Your task to perform on an android device: make emails show in primary in the gmail app Image 0: 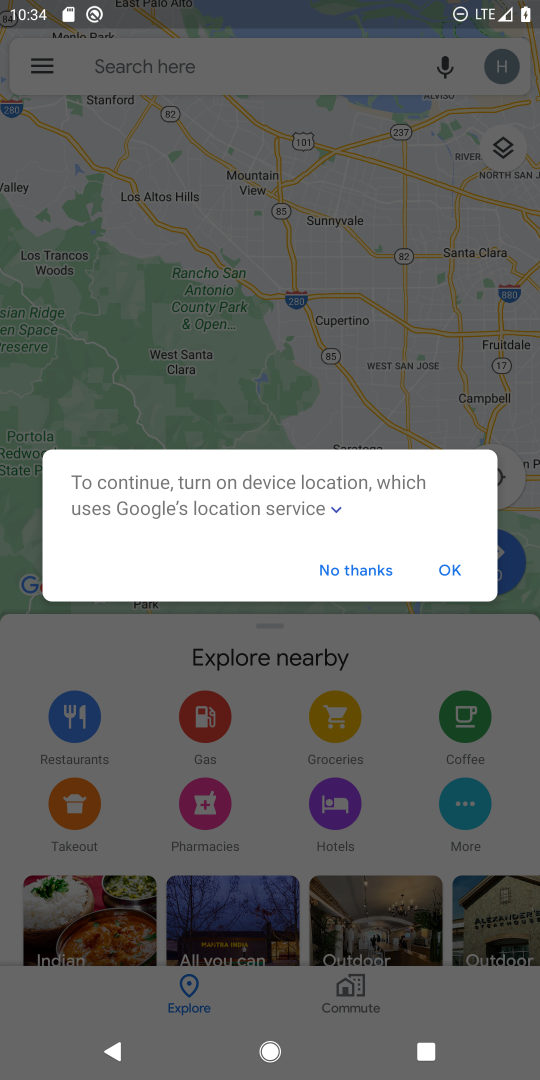
Step 0: press home button
Your task to perform on an android device: make emails show in primary in the gmail app Image 1: 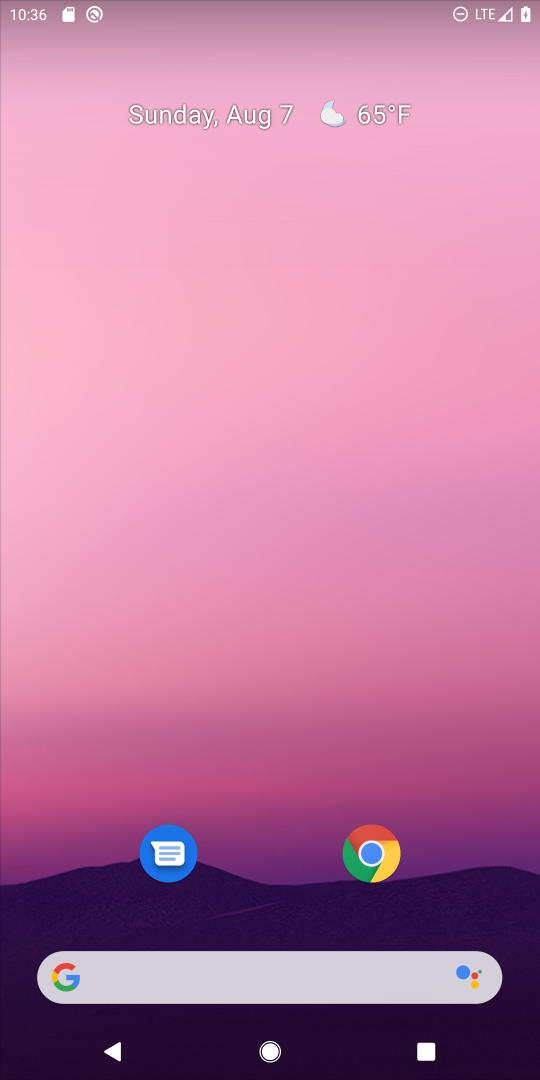
Step 1: drag from (241, 944) to (300, 531)
Your task to perform on an android device: make emails show in primary in the gmail app Image 2: 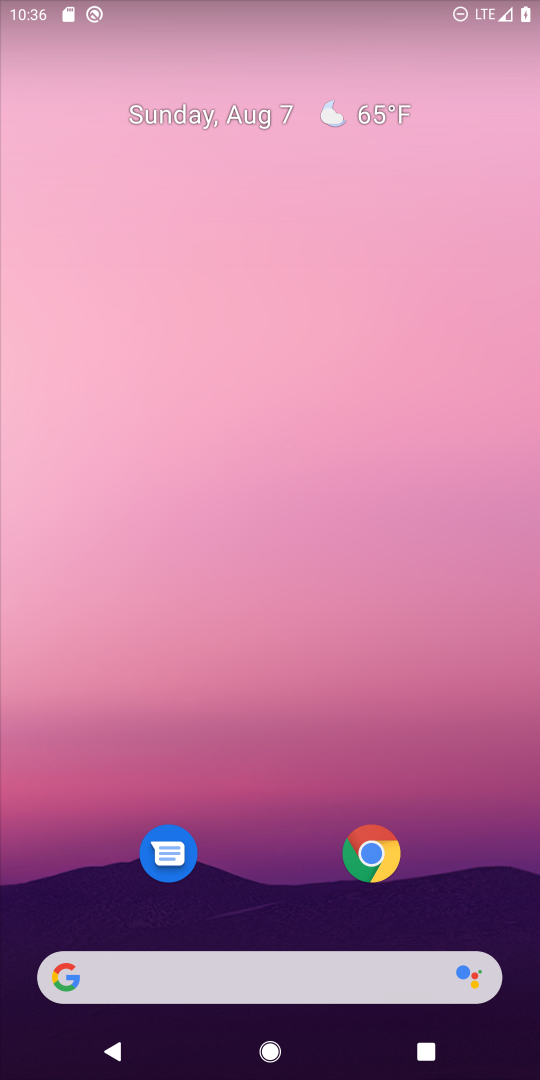
Step 2: drag from (329, 928) to (375, 544)
Your task to perform on an android device: make emails show in primary in the gmail app Image 3: 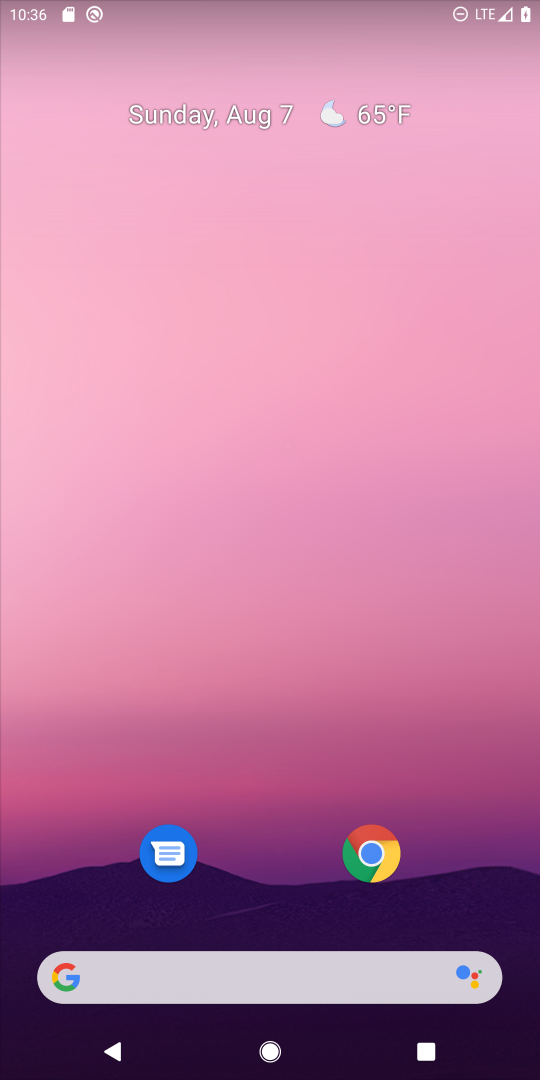
Step 3: drag from (305, 769) to (350, 379)
Your task to perform on an android device: make emails show in primary in the gmail app Image 4: 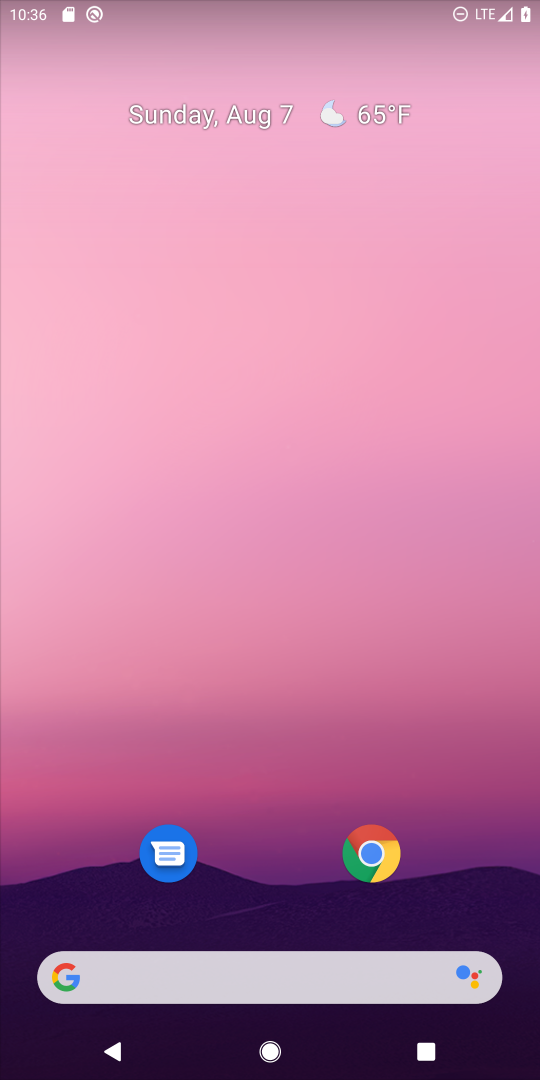
Step 4: drag from (313, 945) to (327, 139)
Your task to perform on an android device: make emails show in primary in the gmail app Image 5: 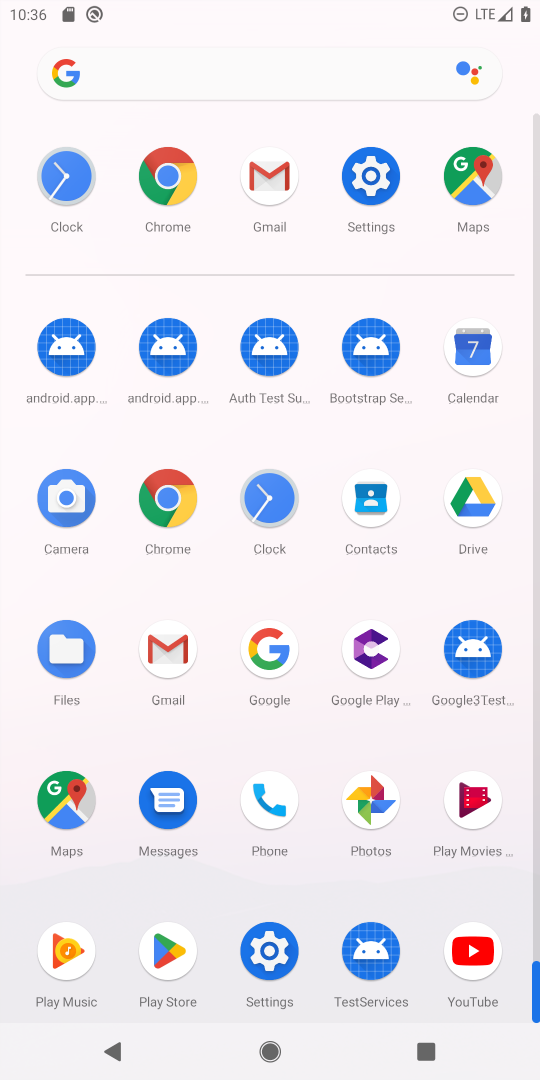
Step 5: click (261, 165)
Your task to perform on an android device: make emails show in primary in the gmail app Image 6: 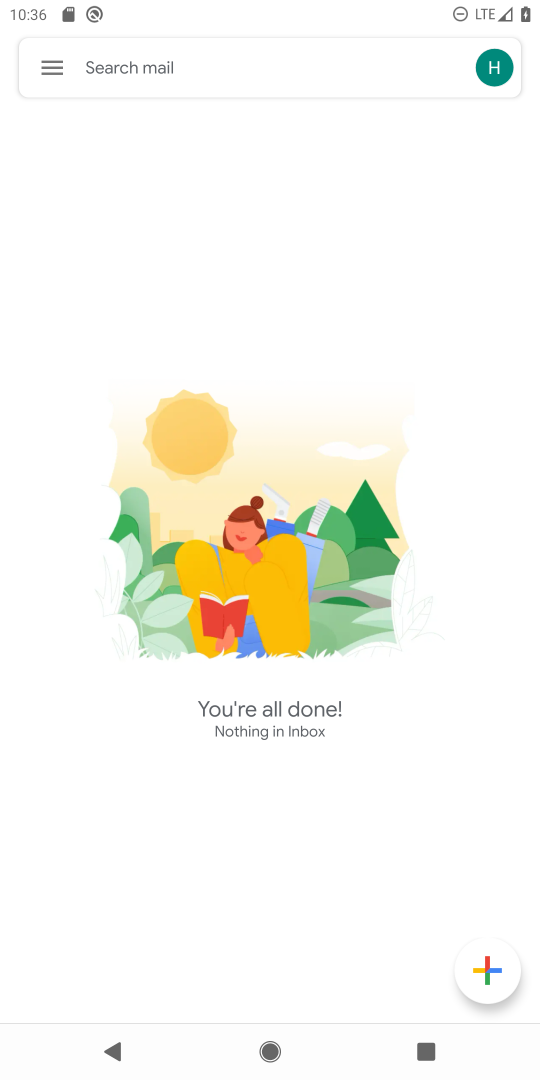
Step 6: click (38, 50)
Your task to perform on an android device: make emails show in primary in the gmail app Image 7: 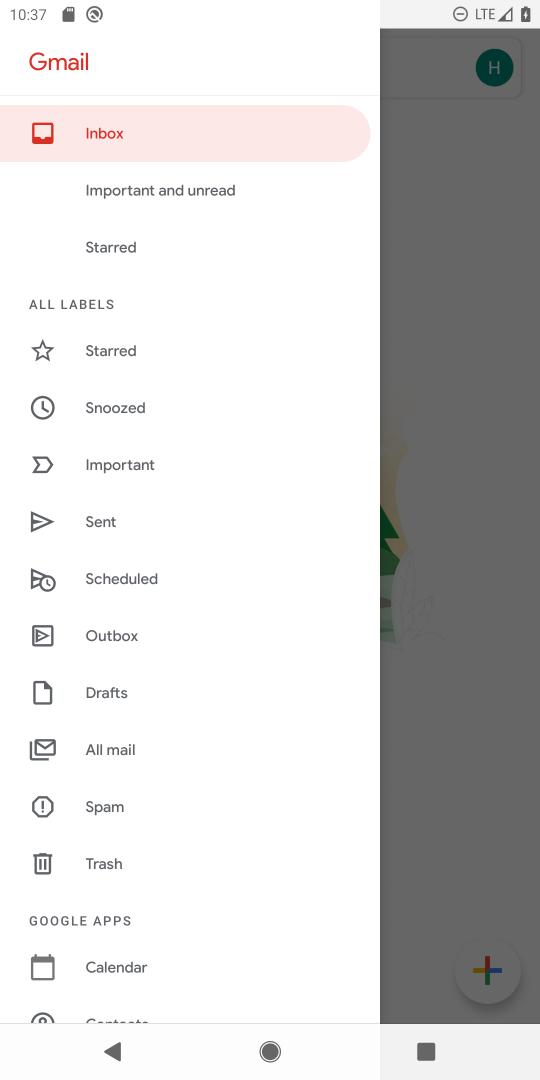
Step 7: drag from (132, 872) to (278, 418)
Your task to perform on an android device: make emails show in primary in the gmail app Image 8: 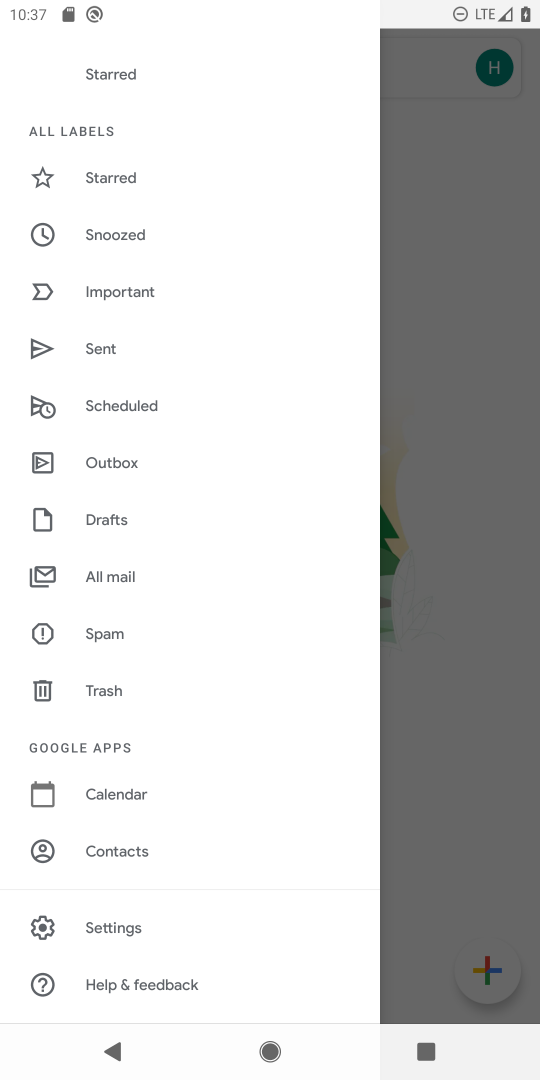
Step 8: click (130, 925)
Your task to perform on an android device: make emails show in primary in the gmail app Image 9: 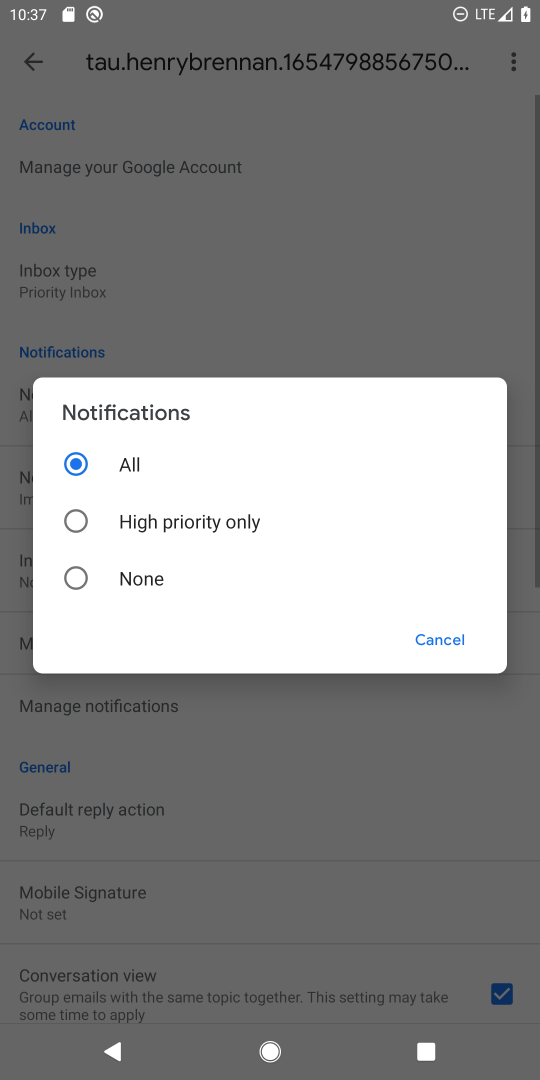
Step 9: click (248, 319)
Your task to perform on an android device: make emails show in primary in the gmail app Image 10: 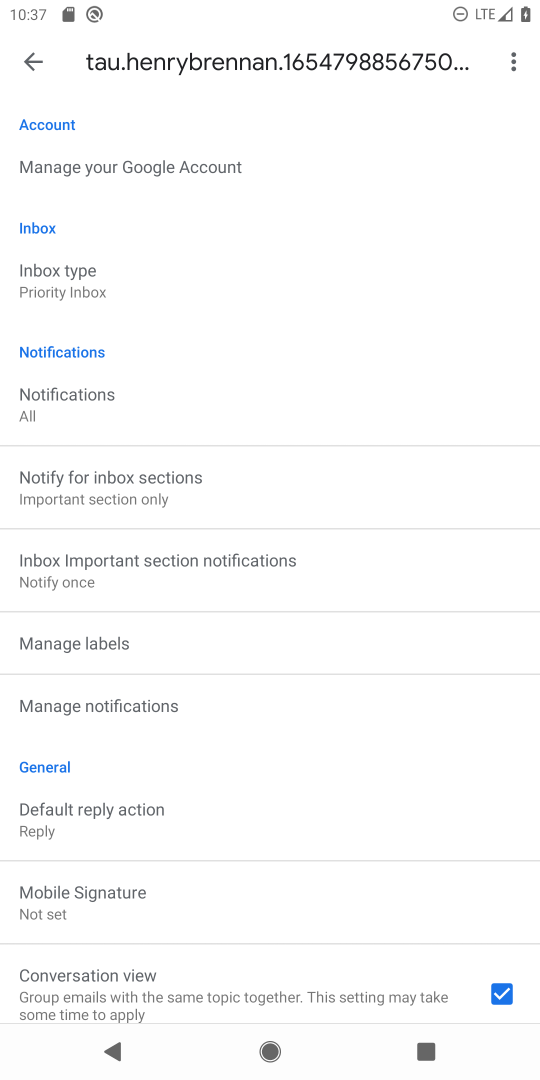
Step 10: drag from (137, 222) to (134, 864)
Your task to perform on an android device: make emails show in primary in the gmail app Image 11: 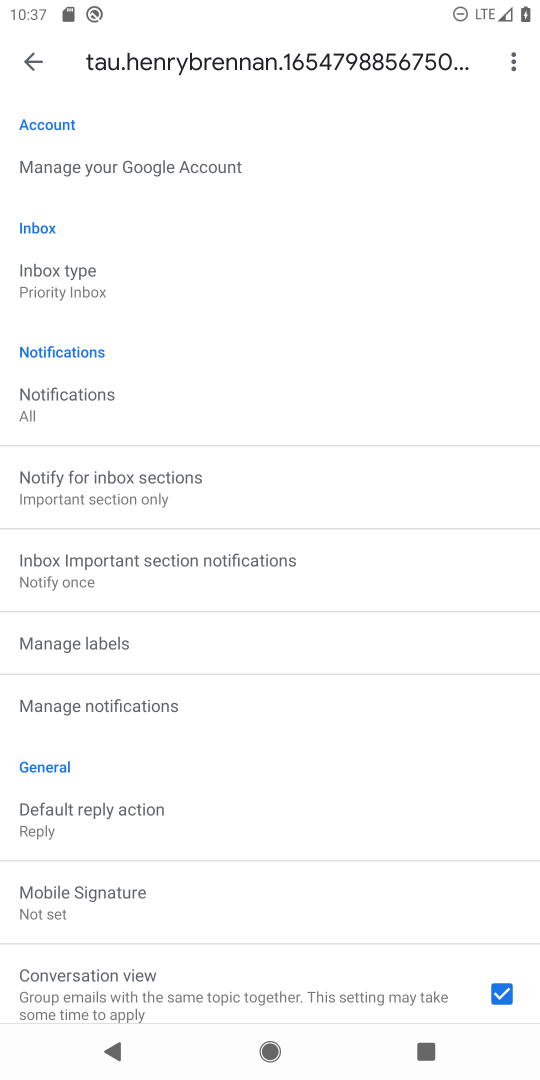
Step 11: drag from (218, 893) to (398, 112)
Your task to perform on an android device: make emails show in primary in the gmail app Image 12: 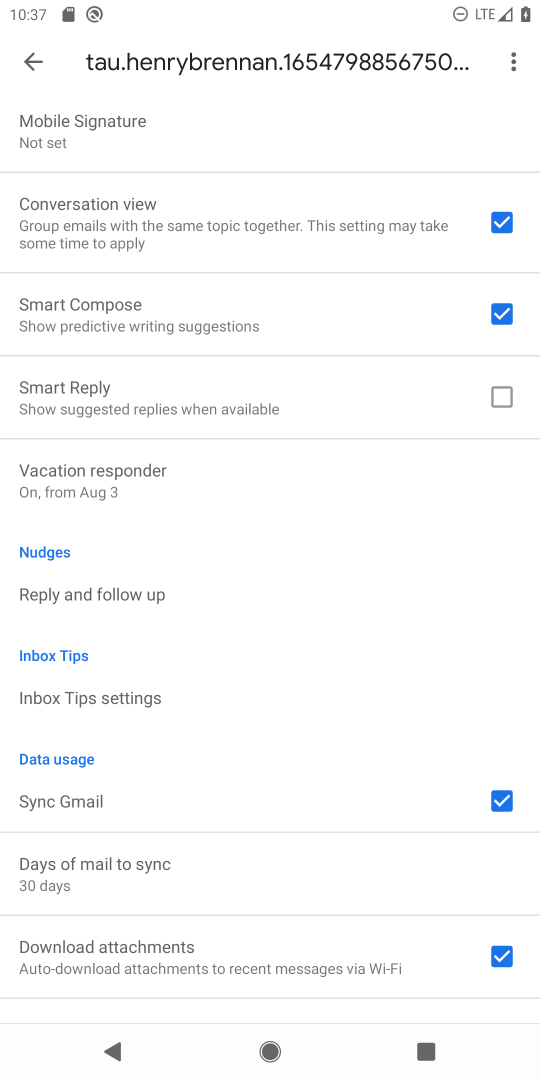
Step 12: click (158, 398)
Your task to perform on an android device: make emails show in primary in the gmail app Image 13: 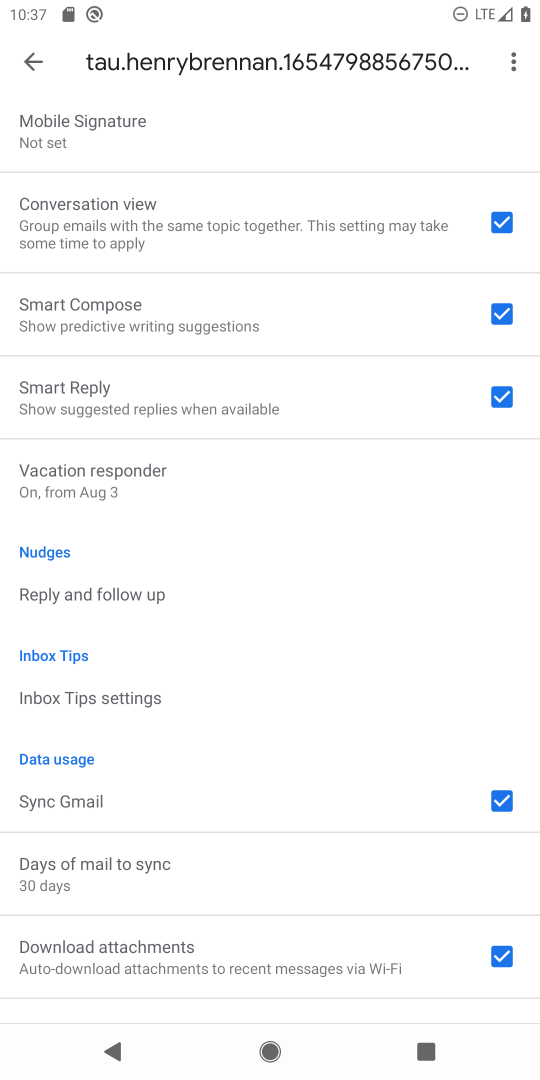
Step 13: task complete